Your task to perform on an android device: Open the map Image 0: 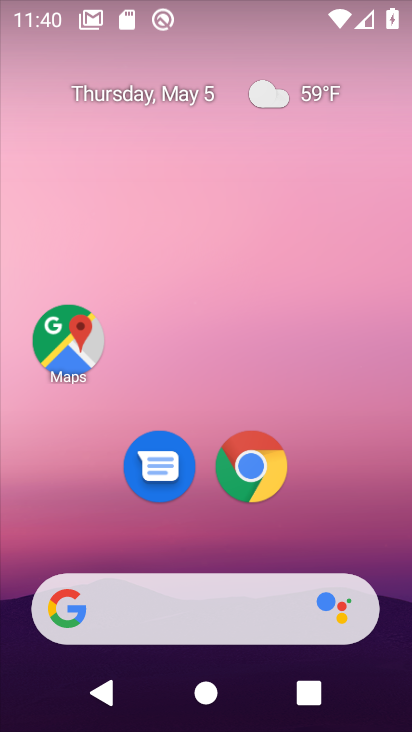
Step 0: click (49, 360)
Your task to perform on an android device: Open the map Image 1: 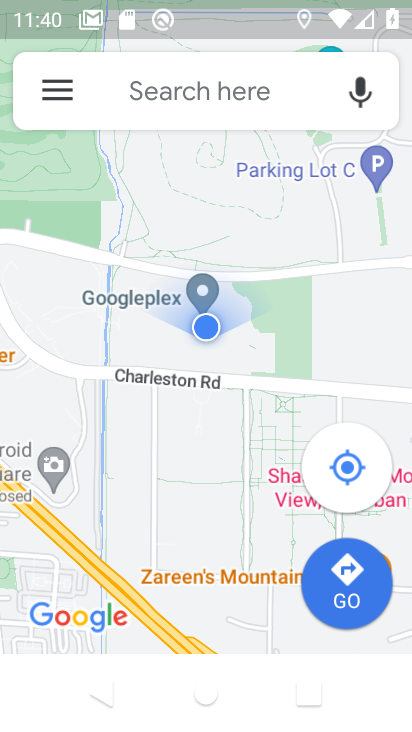
Step 1: task complete